Your task to perform on an android device: change notifications settings Image 0: 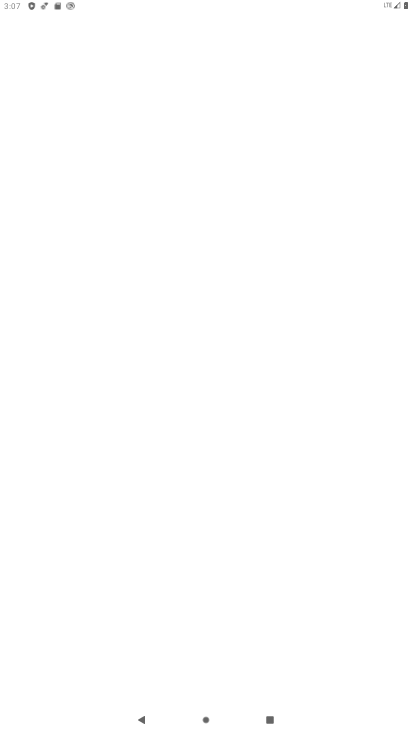
Step 0: drag from (224, 621) to (207, 212)
Your task to perform on an android device: change notifications settings Image 1: 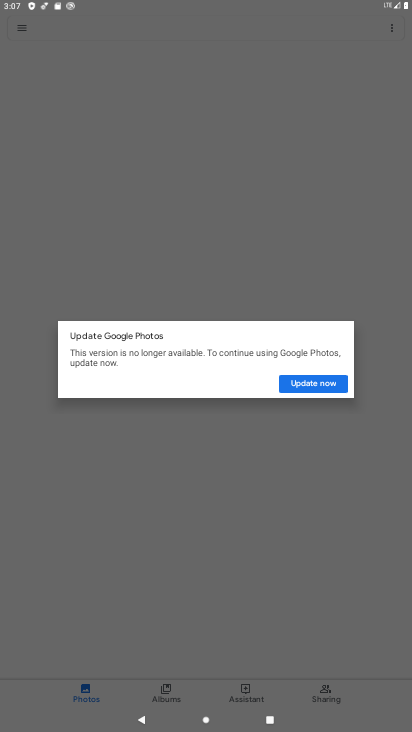
Step 1: press home button
Your task to perform on an android device: change notifications settings Image 2: 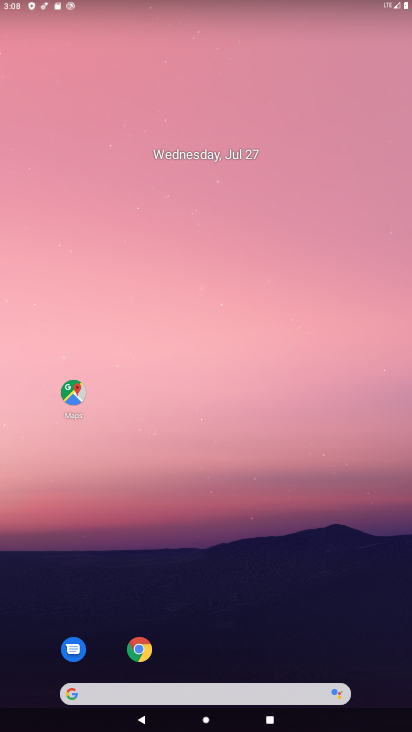
Step 2: drag from (211, 619) to (281, 190)
Your task to perform on an android device: change notifications settings Image 3: 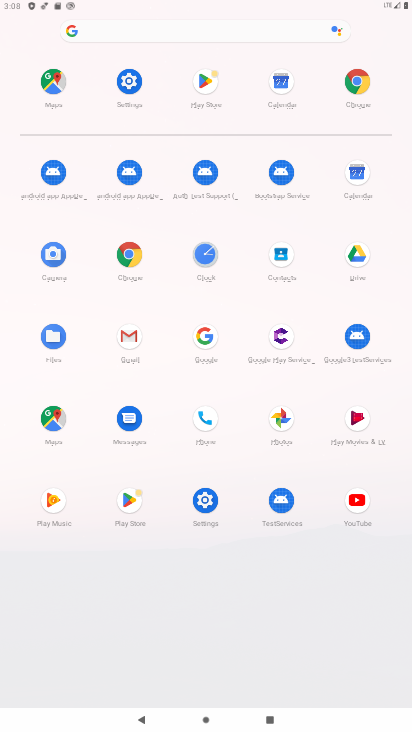
Step 3: click (205, 498)
Your task to perform on an android device: change notifications settings Image 4: 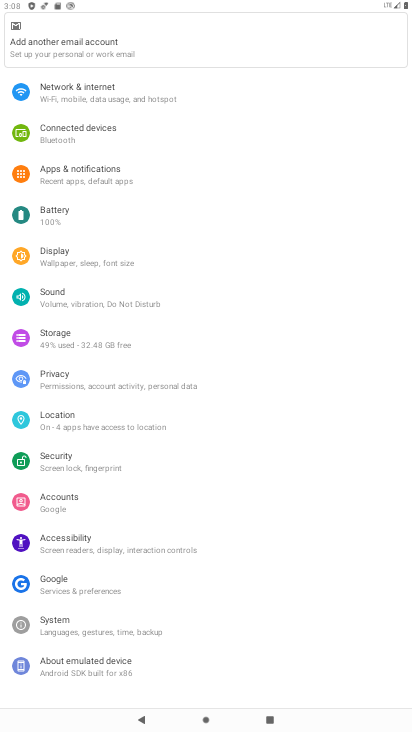
Step 4: click (111, 170)
Your task to perform on an android device: change notifications settings Image 5: 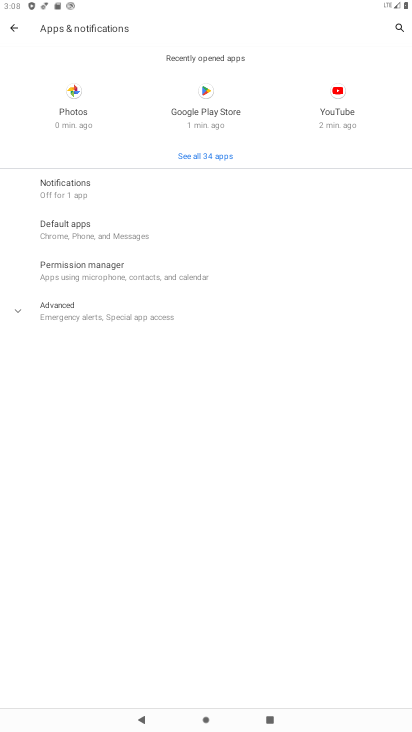
Step 5: click (74, 191)
Your task to perform on an android device: change notifications settings Image 6: 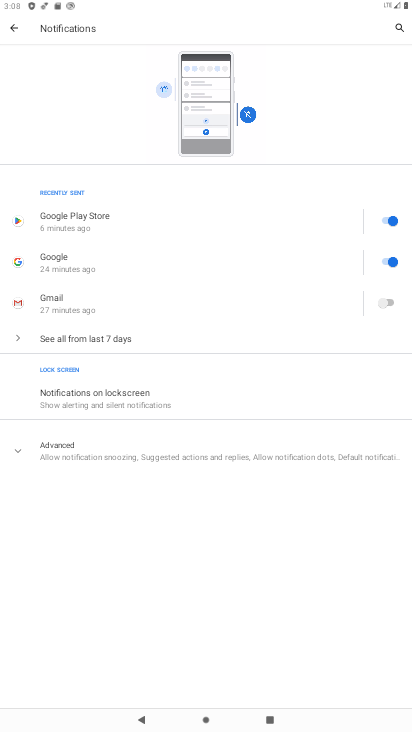
Step 6: click (387, 263)
Your task to perform on an android device: change notifications settings Image 7: 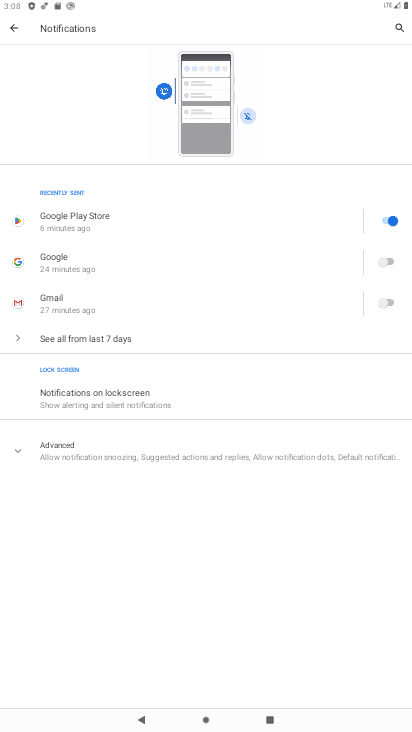
Step 7: task complete